Your task to perform on an android device: remove spam from my inbox in the gmail app Image 0: 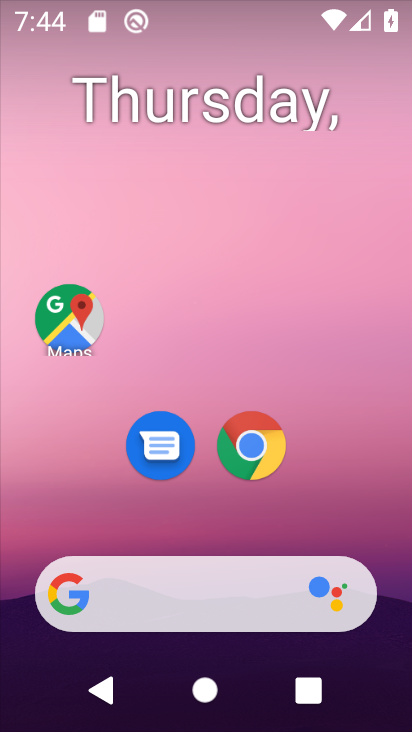
Step 0: drag from (281, 671) to (212, 244)
Your task to perform on an android device: remove spam from my inbox in the gmail app Image 1: 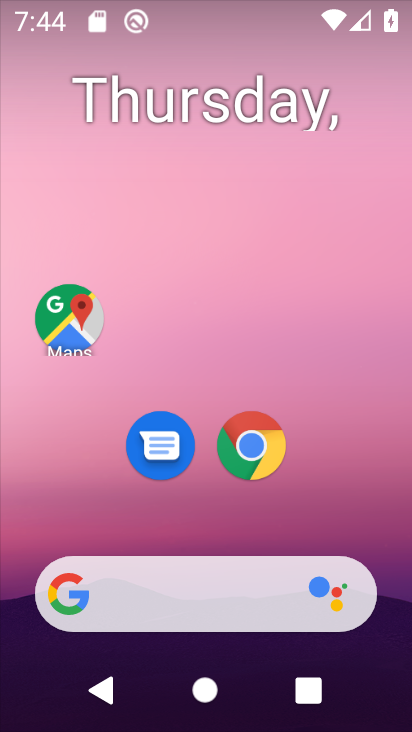
Step 1: drag from (321, 567) to (191, 111)
Your task to perform on an android device: remove spam from my inbox in the gmail app Image 2: 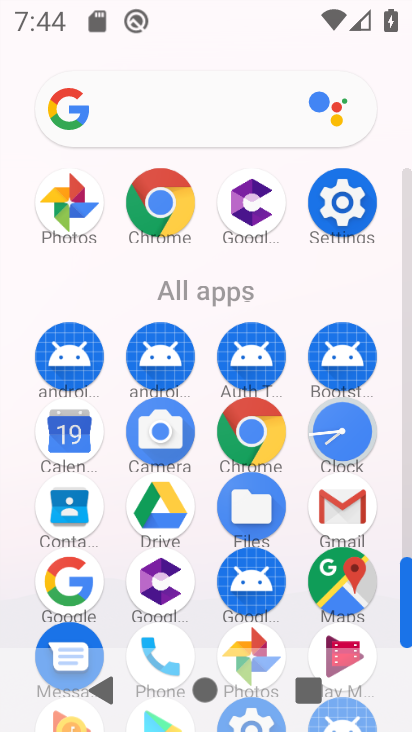
Step 2: click (339, 508)
Your task to perform on an android device: remove spam from my inbox in the gmail app Image 3: 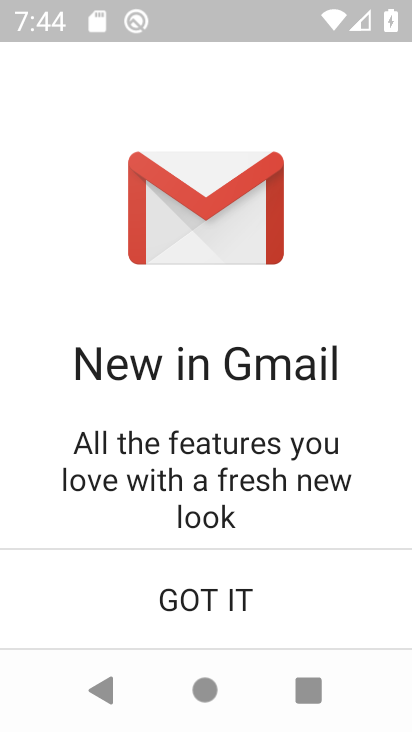
Step 3: click (217, 594)
Your task to perform on an android device: remove spam from my inbox in the gmail app Image 4: 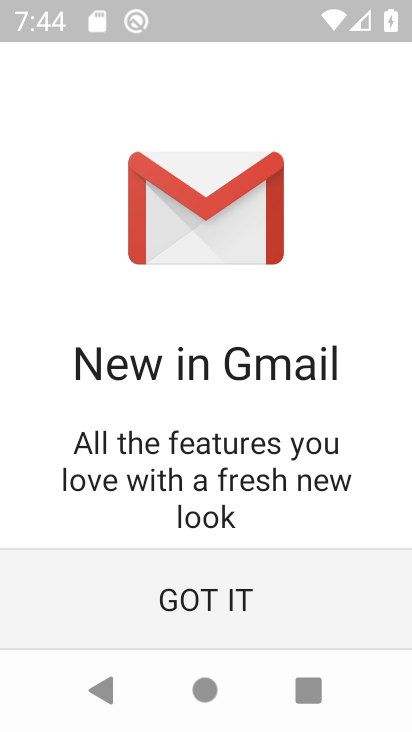
Step 4: click (223, 592)
Your task to perform on an android device: remove spam from my inbox in the gmail app Image 5: 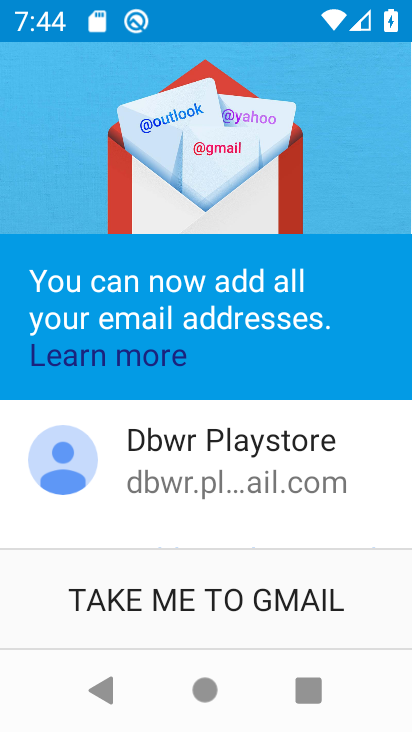
Step 5: click (180, 582)
Your task to perform on an android device: remove spam from my inbox in the gmail app Image 6: 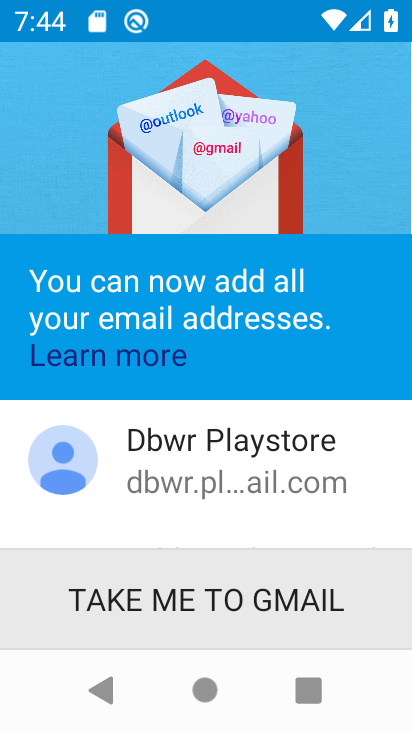
Step 6: click (191, 602)
Your task to perform on an android device: remove spam from my inbox in the gmail app Image 7: 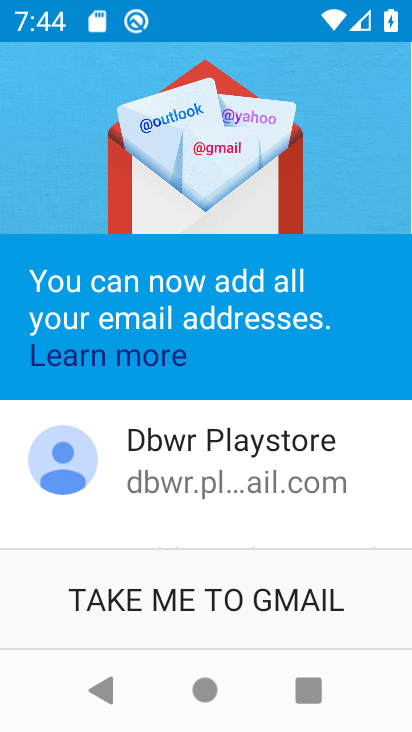
Step 7: click (195, 598)
Your task to perform on an android device: remove spam from my inbox in the gmail app Image 8: 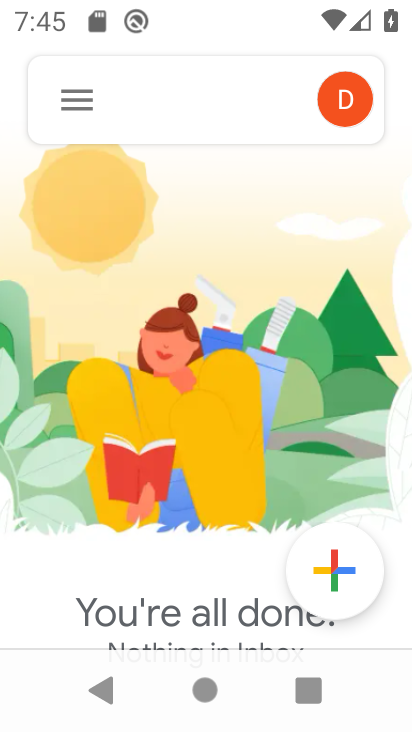
Step 8: click (76, 107)
Your task to perform on an android device: remove spam from my inbox in the gmail app Image 9: 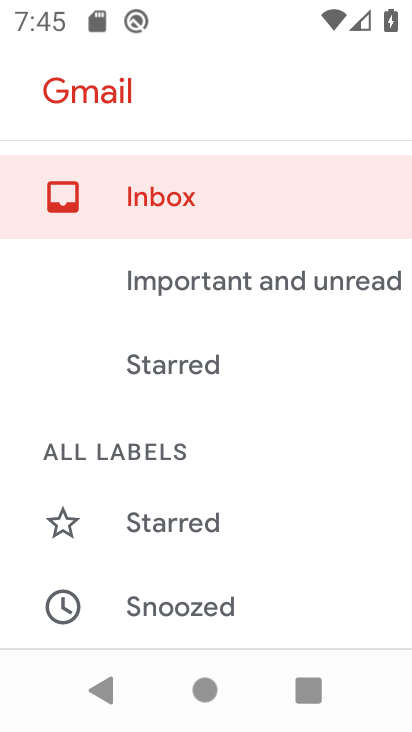
Step 9: drag from (244, 570) to (216, 169)
Your task to perform on an android device: remove spam from my inbox in the gmail app Image 10: 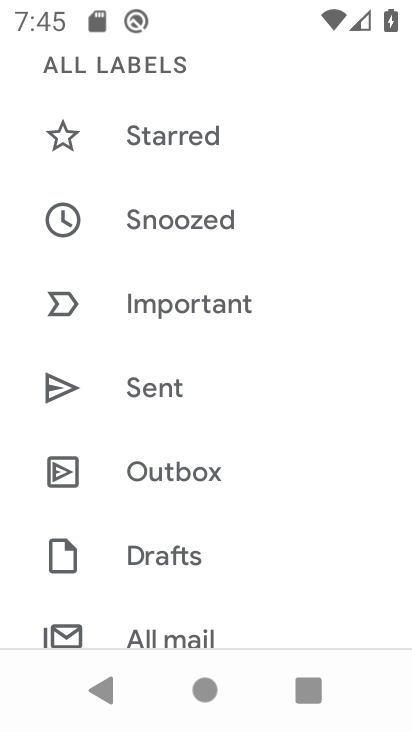
Step 10: drag from (258, 449) to (279, 137)
Your task to perform on an android device: remove spam from my inbox in the gmail app Image 11: 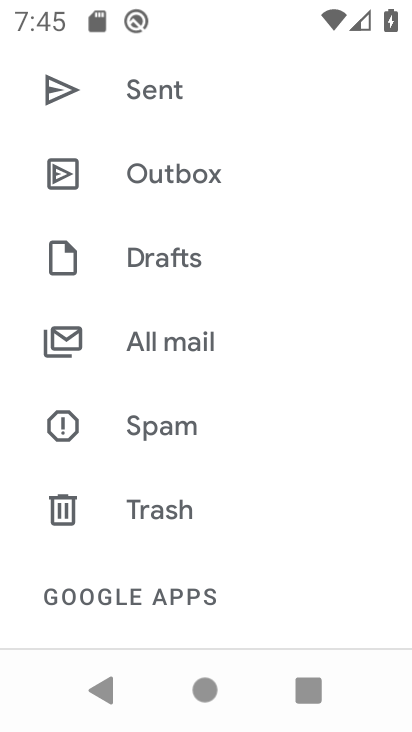
Step 11: drag from (260, 567) to (239, 236)
Your task to perform on an android device: remove spam from my inbox in the gmail app Image 12: 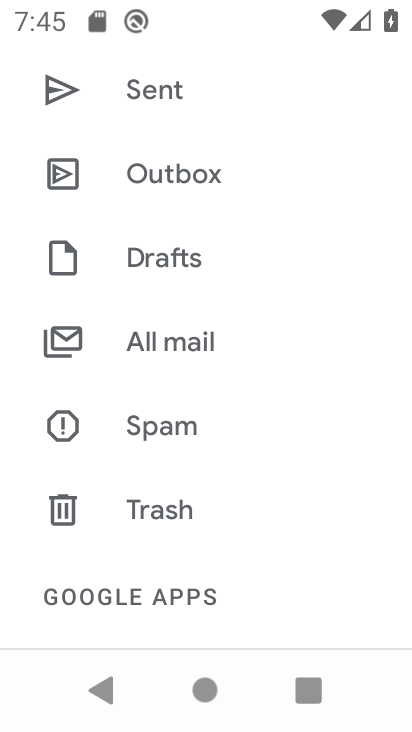
Step 12: click (152, 425)
Your task to perform on an android device: remove spam from my inbox in the gmail app Image 13: 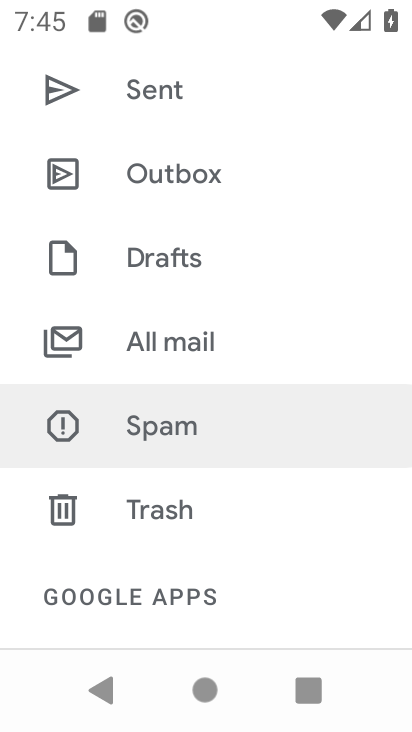
Step 13: click (152, 425)
Your task to perform on an android device: remove spam from my inbox in the gmail app Image 14: 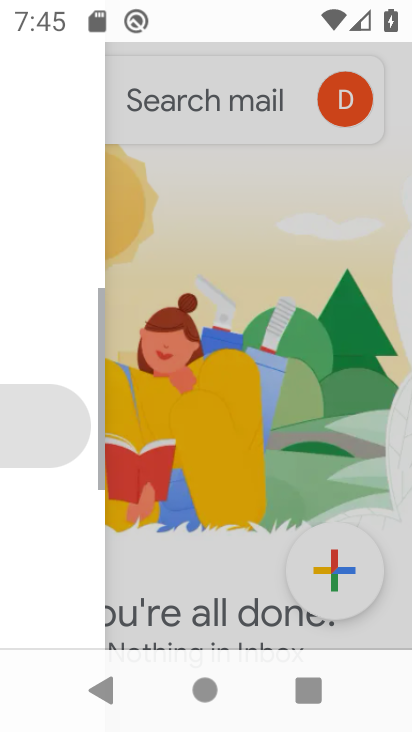
Step 14: click (153, 423)
Your task to perform on an android device: remove spam from my inbox in the gmail app Image 15: 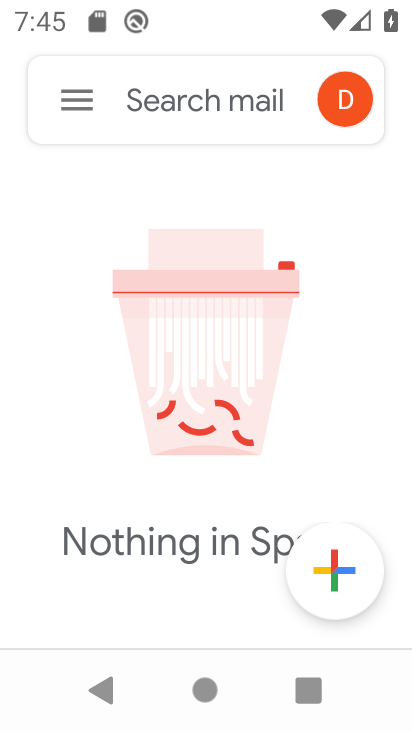
Step 15: task complete